Your task to perform on an android device: turn off smart reply in the gmail app Image 0: 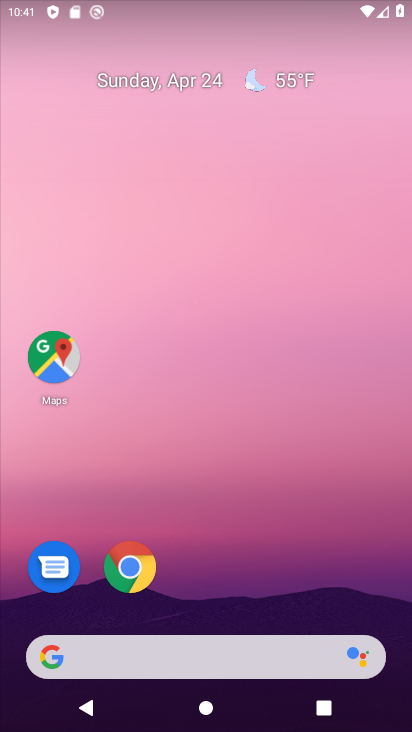
Step 0: drag from (364, 484) to (342, 234)
Your task to perform on an android device: turn off smart reply in the gmail app Image 1: 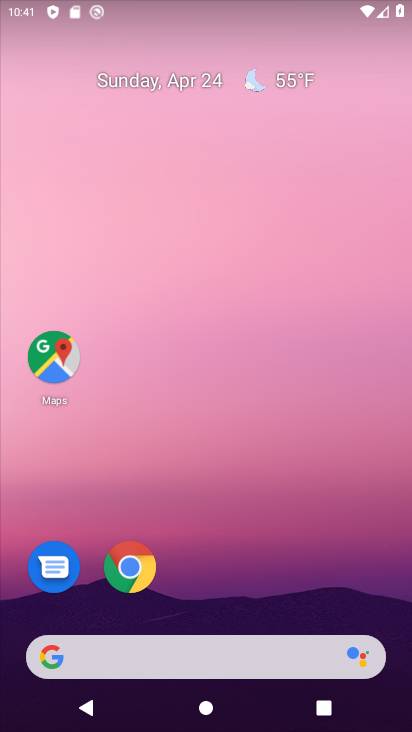
Step 1: drag from (398, 642) to (384, 177)
Your task to perform on an android device: turn off smart reply in the gmail app Image 2: 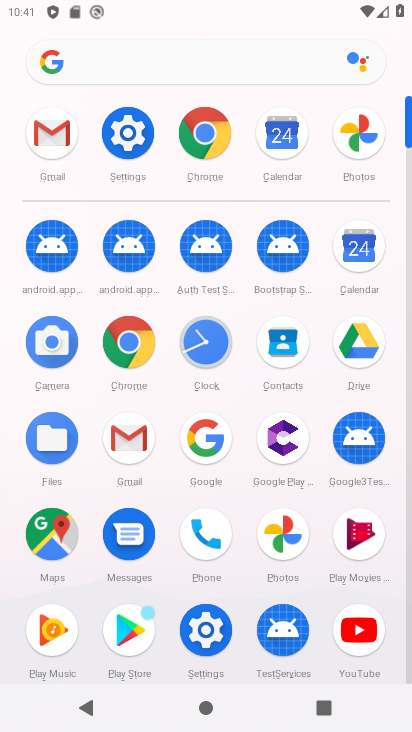
Step 2: click (57, 138)
Your task to perform on an android device: turn off smart reply in the gmail app Image 3: 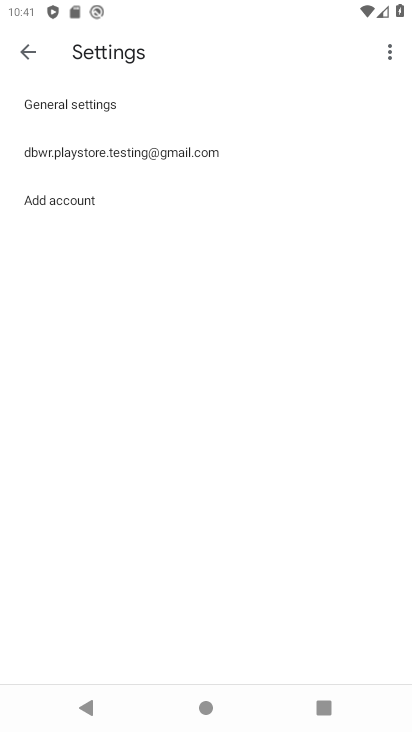
Step 3: click (82, 143)
Your task to perform on an android device: turn off smart reply in the gmail app Image 4: 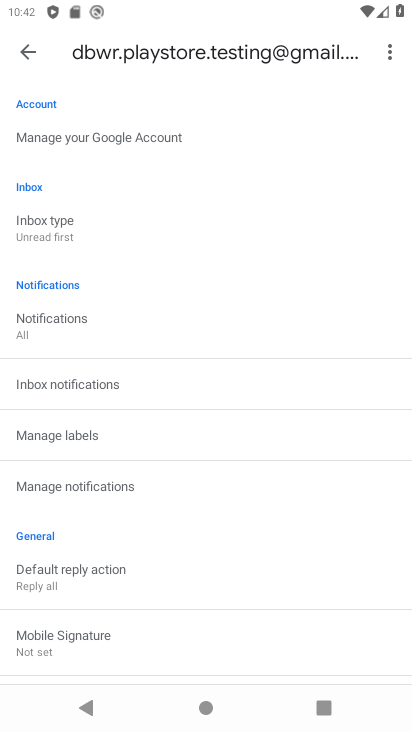
Step 4: drag from (328, 618) to (323, 321)
Your task to perform on an android device: turn off smart reply in the gmail app Image 5: 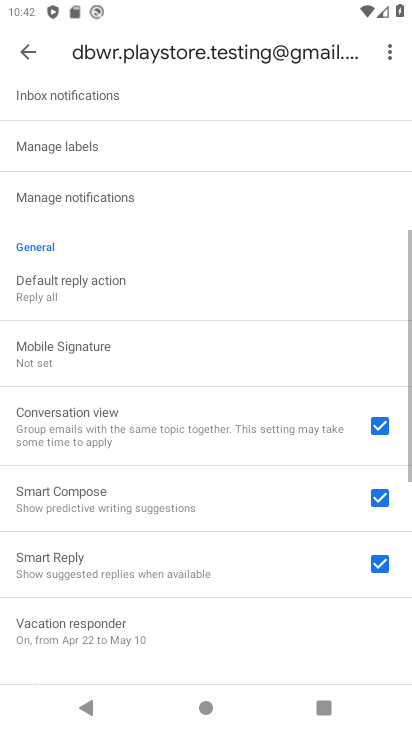
Step 5: click (350, 344)
Your task to perform on an android device: turn off smart reply in the gmail app Image 6: 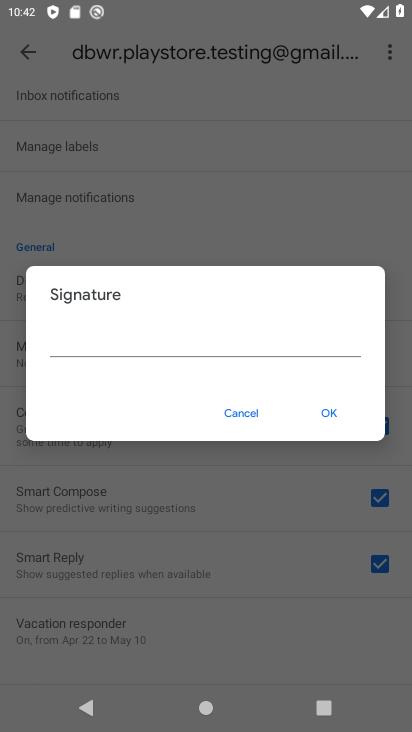
Step 6: click (251, 409)
Your task to perform on an android device: turn off smart reply in the gmail app Image 7: 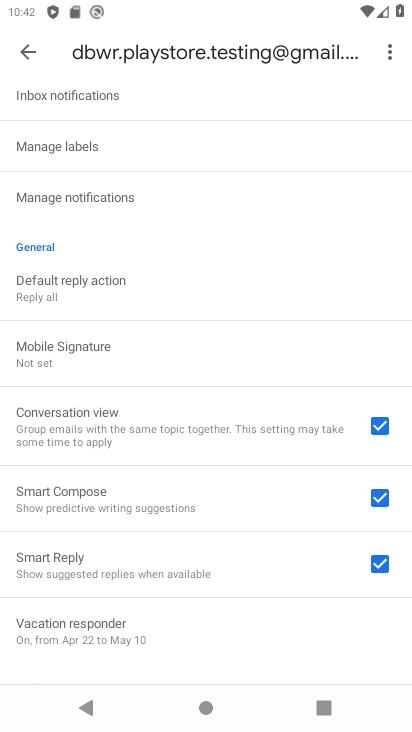
Step 7: click (373, 553)
Your task to perform on an android device: turn off smart reply in the gmail app Image 8: 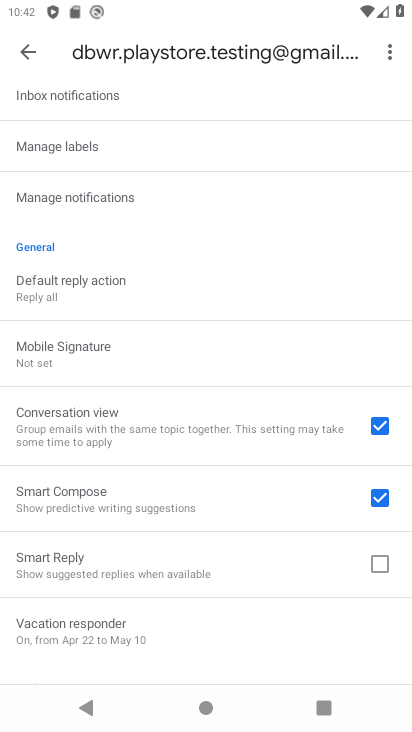
Step 8: task complete